Your task to perform on an android device: Open location settings Image 0: 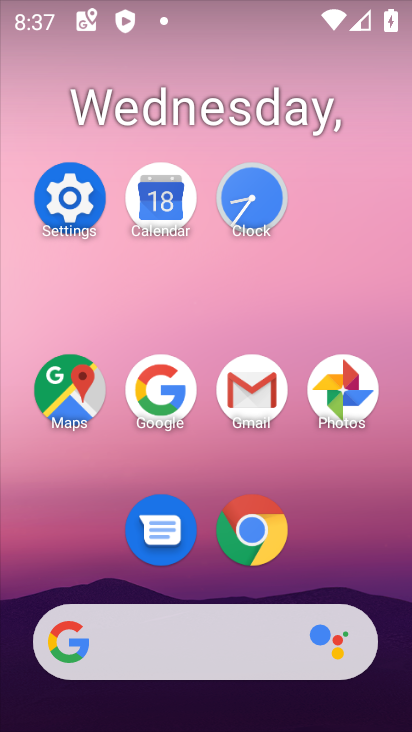
Step 0: click (48, 225)
Your task to perform on an android device: Open location settings Image 1: 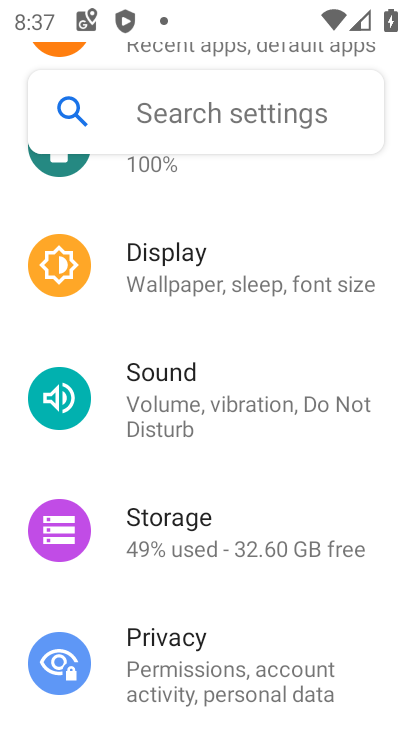
Step 1: drag from (164, 577) to (396, 135)
Your task to perform on an android device: Open location settings Image 2: 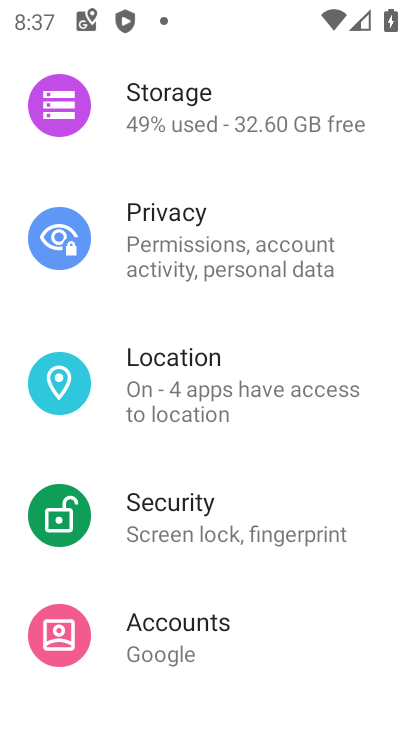
Step 2: drag from (167, 621) to (402, 90)
Your task to perform on an android device: Open location settings Image 3: 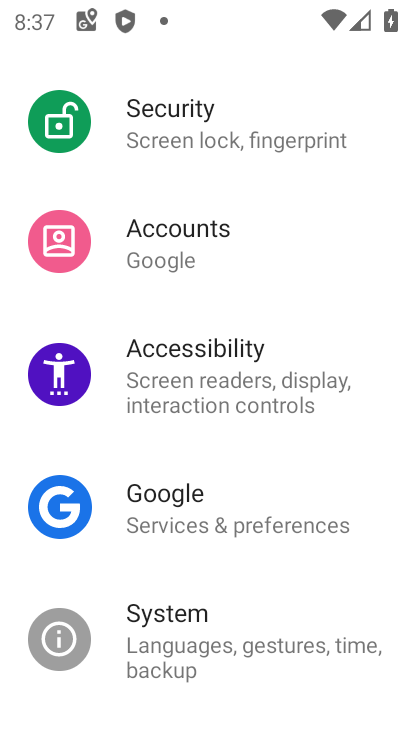
Step 3: drag from (367, 180) to (219, 731)
Your task to perform on an android device: Open location settings Image 4: 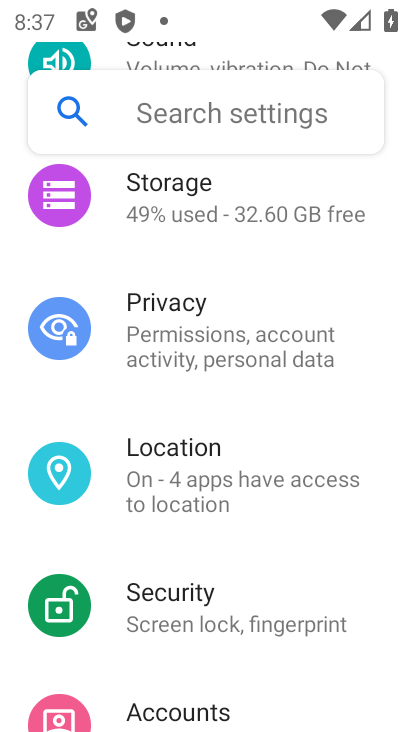
Step 4: click (273, 458)
Your task to perform on an android device: Open location settings Image 5: 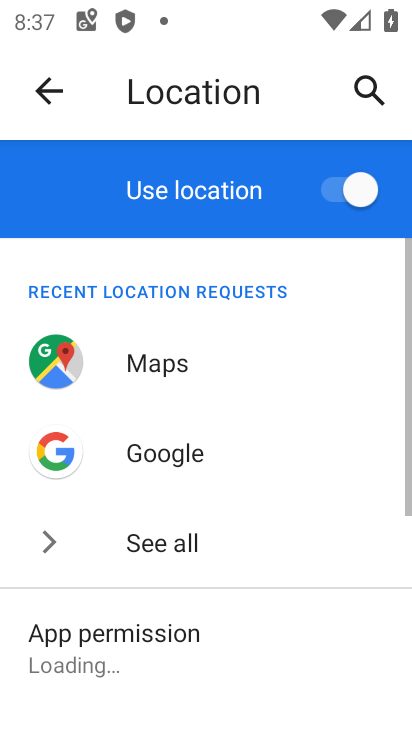
Step 5: task complete